Your task to perform on an android device: turn on translation in the chrome app Image 0: 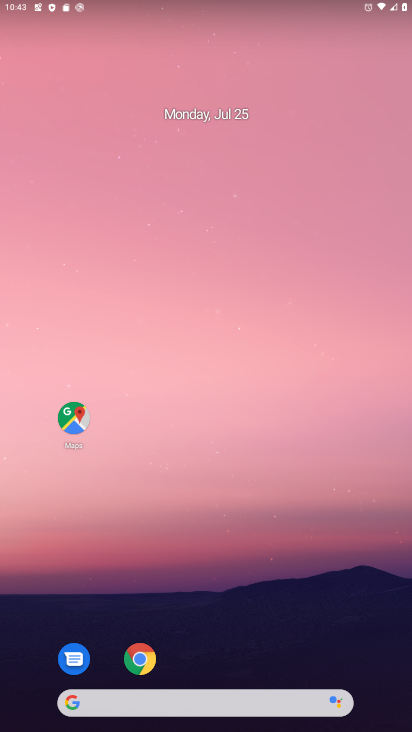
Step 0: drag from (216, 680) to (216, 87)
Your task to perform on an android device: turn on translation in the chrome app Image 1: 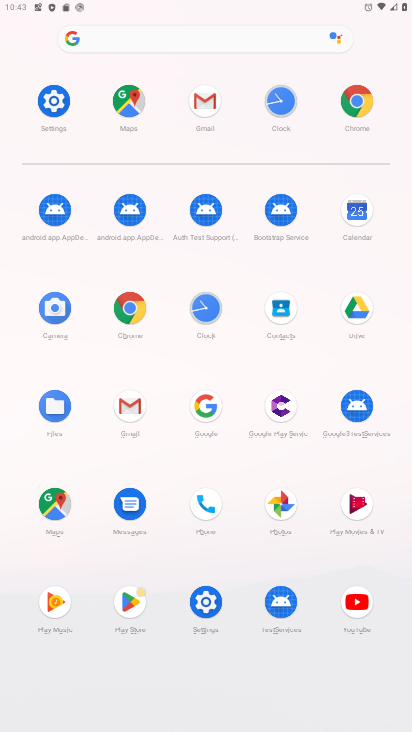
Step 1: click (122, 311)
Your task to perform on an android device: turn on translation in the chrome app Image 2: 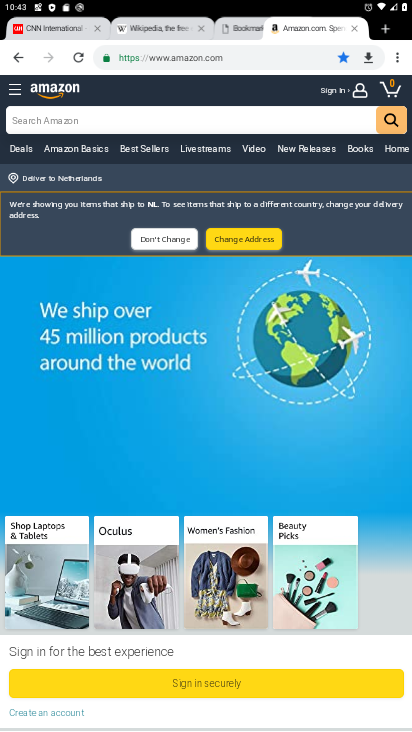
Step 2: drag from (396, 54) to (276, 419)
Your task to perform on an android device: turn on translation in the chrome app Image 3: 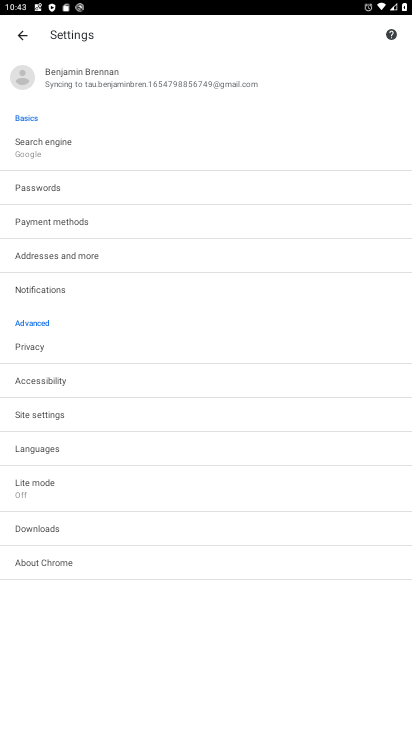
Step 3: click (42, 454)
Your task to perform on an android device: turn on translation in the chrome app Image 4: 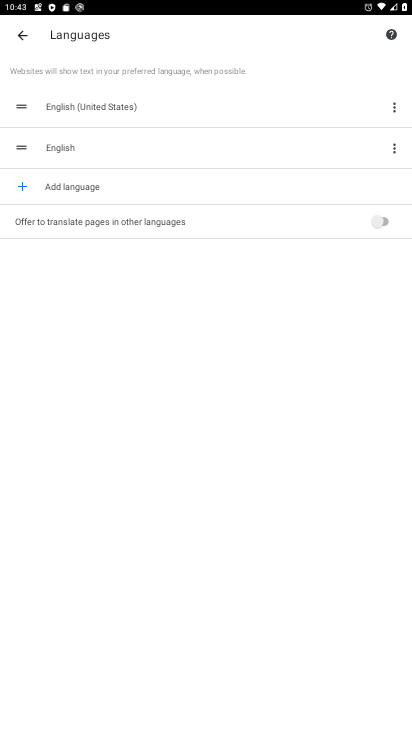
Step 4: click (380, 226)
Your task to perform on an android device: turn on translation in the chrome app Image 5: 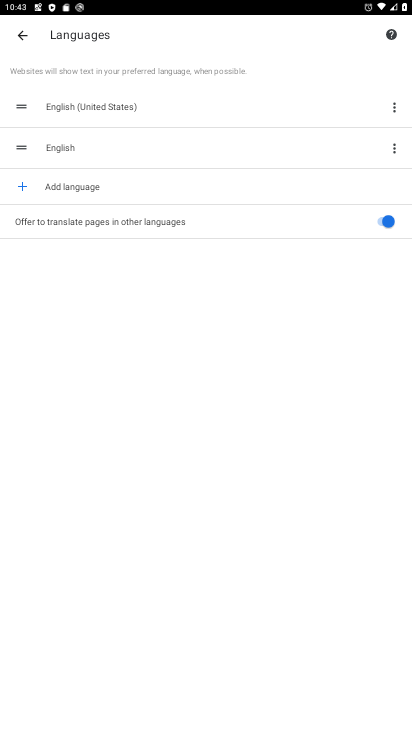
Step 5: task complete